Your task to perform on an android device: toggle notification dots Image 0: 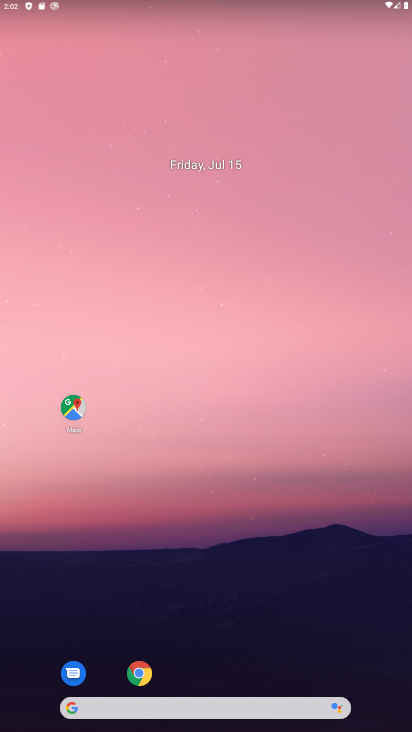
Step 0: drag from (250, 666) to (250, 346)
Your task to perform on an android device: toggle notification dots Image 1: 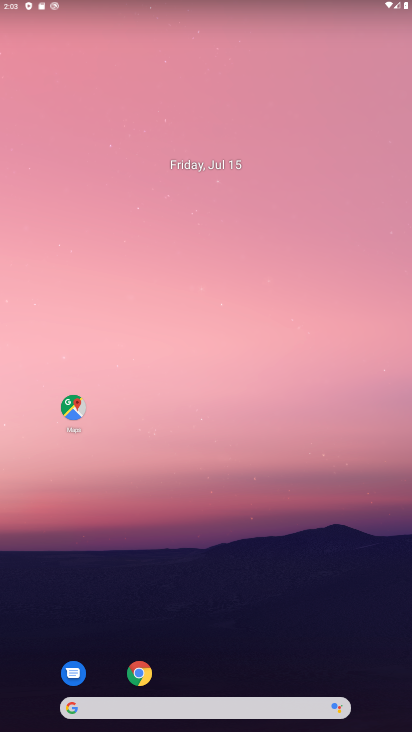
Step 1: drag from (176, 693) to (218, 241)
Your task to perform on an android device: toggle notification dots Image 2: 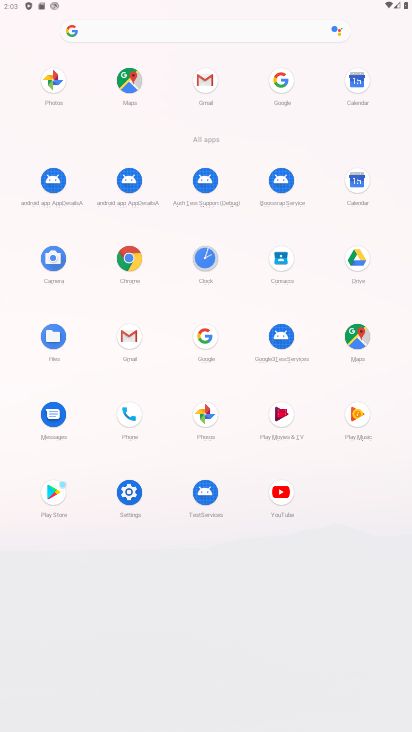
Step 2: click (133, 487)
Your task to perform on an android device: toggle notification dots Image 3: 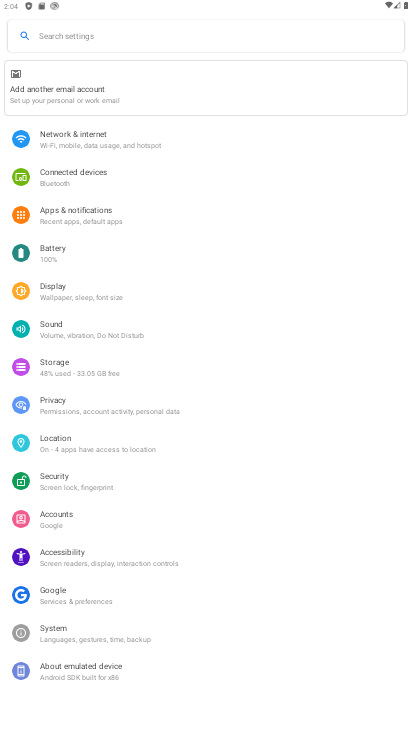
Step 3: click (78, 205)
Your task to perform on an android device: toggle notification dots Image 4: 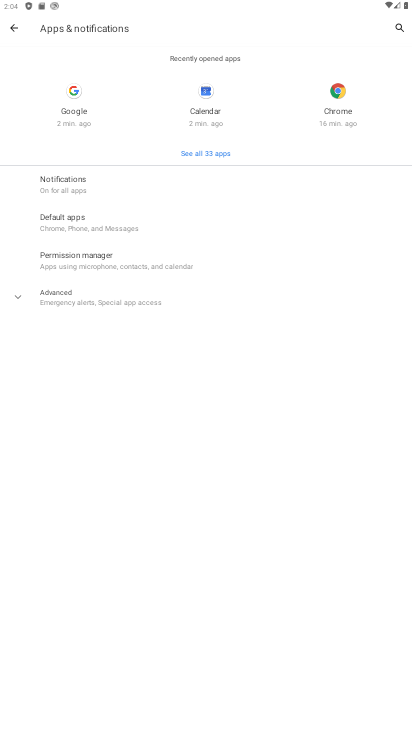
Step 4: click (61, 294)
Your task to perform on an android device: toggle notification dots Image 5: 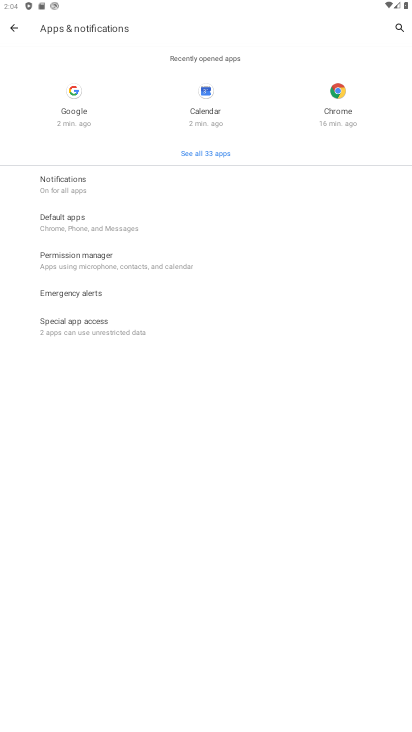
Step 5: click (74, 181)
Your task to perform on an android device: toggle notification dots Image 6: 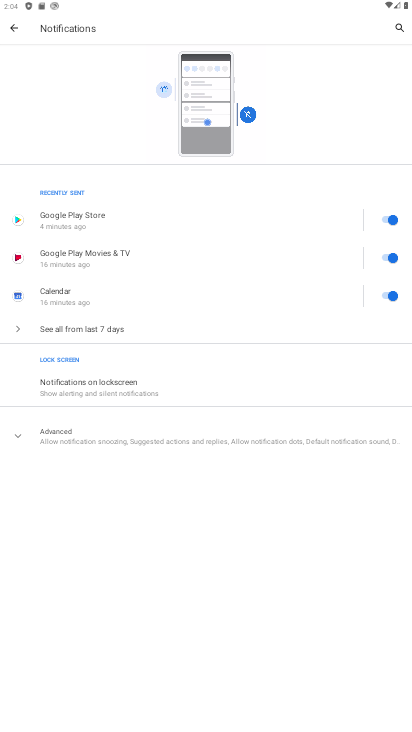
Step 6: click (98, 432)
Your task to perform on an android device: toggle notification dots Image 7: 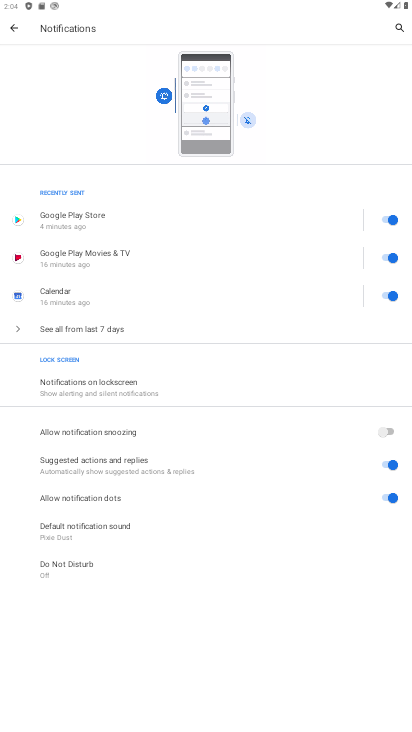
Step 7: click (382, 495)
Your task to perform on an android device: toggle notification dots Image 8: 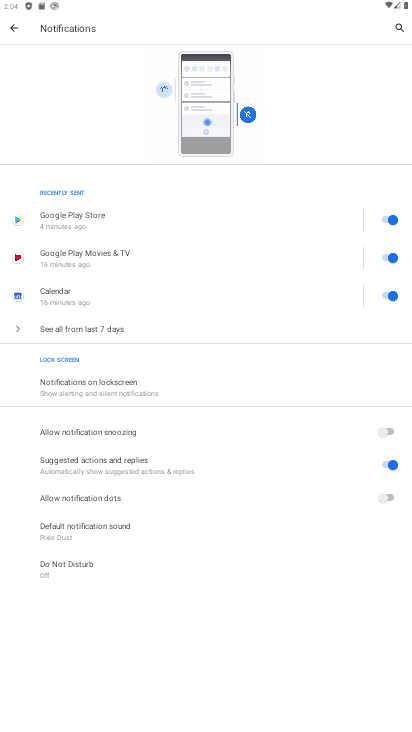
Step 8: task complete